Your task to perform on an android device: Do I have any events this weekend? Image 0: 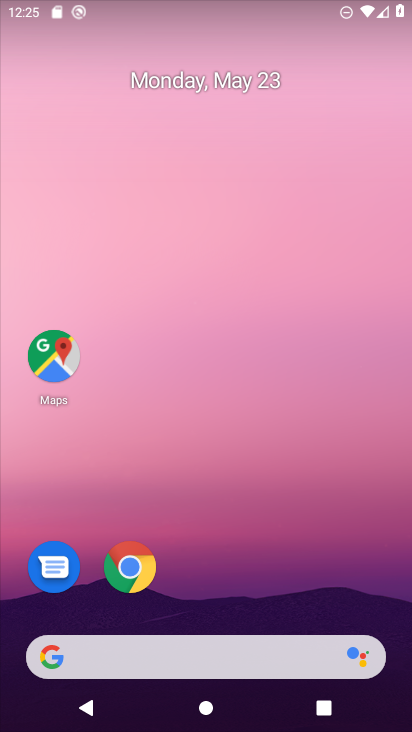
Step 0: click (240, 80)
Your task to perform on an android device: Do I have any events this weekend? Image 1: 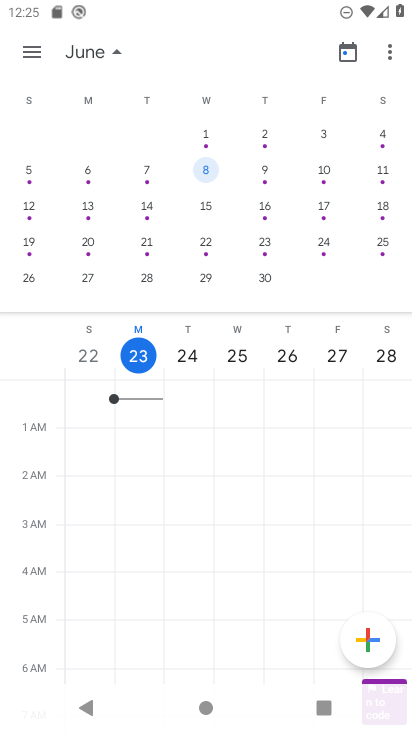
Step 1: click (31, 63)
Your task to perform on an android device: Do I have any events this weekend? Image 2: 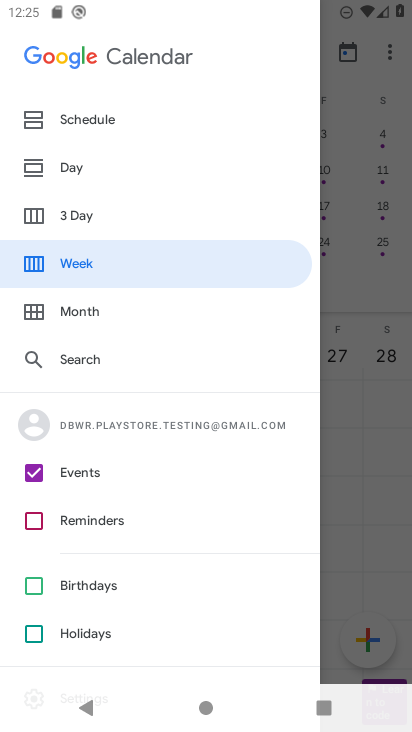
Step 2: click (365, 403)
Your task to perform on an android device: Do I have any events this weekend? Image 3: 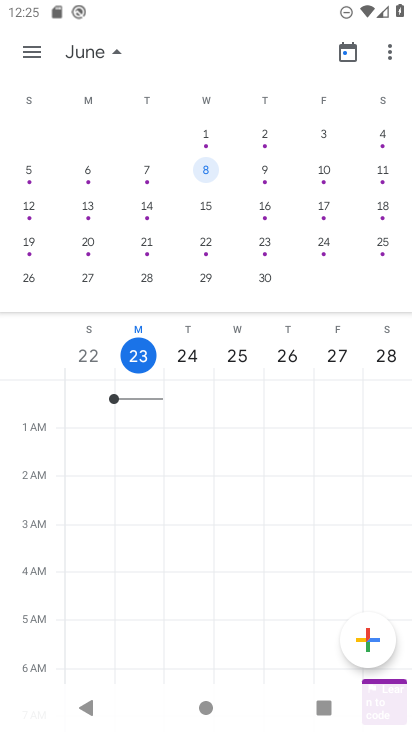
Step 3: click (382, 176)
Your task to perform on an android device: Do I have any events this weekend? Image 4: 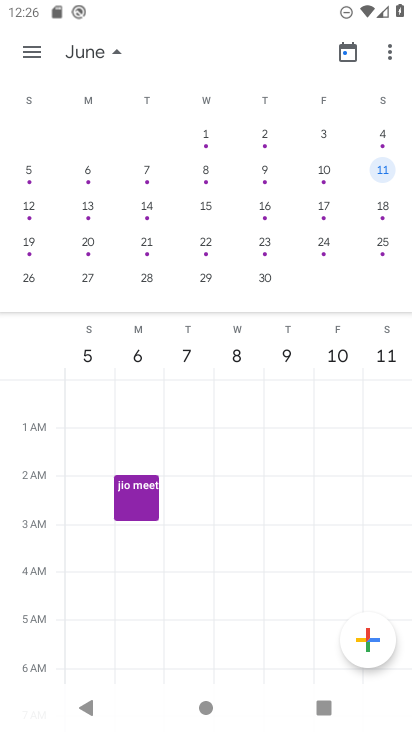
Step 4: task complete